Your task to perform on an android device: Turn off the flashlight Image 0: 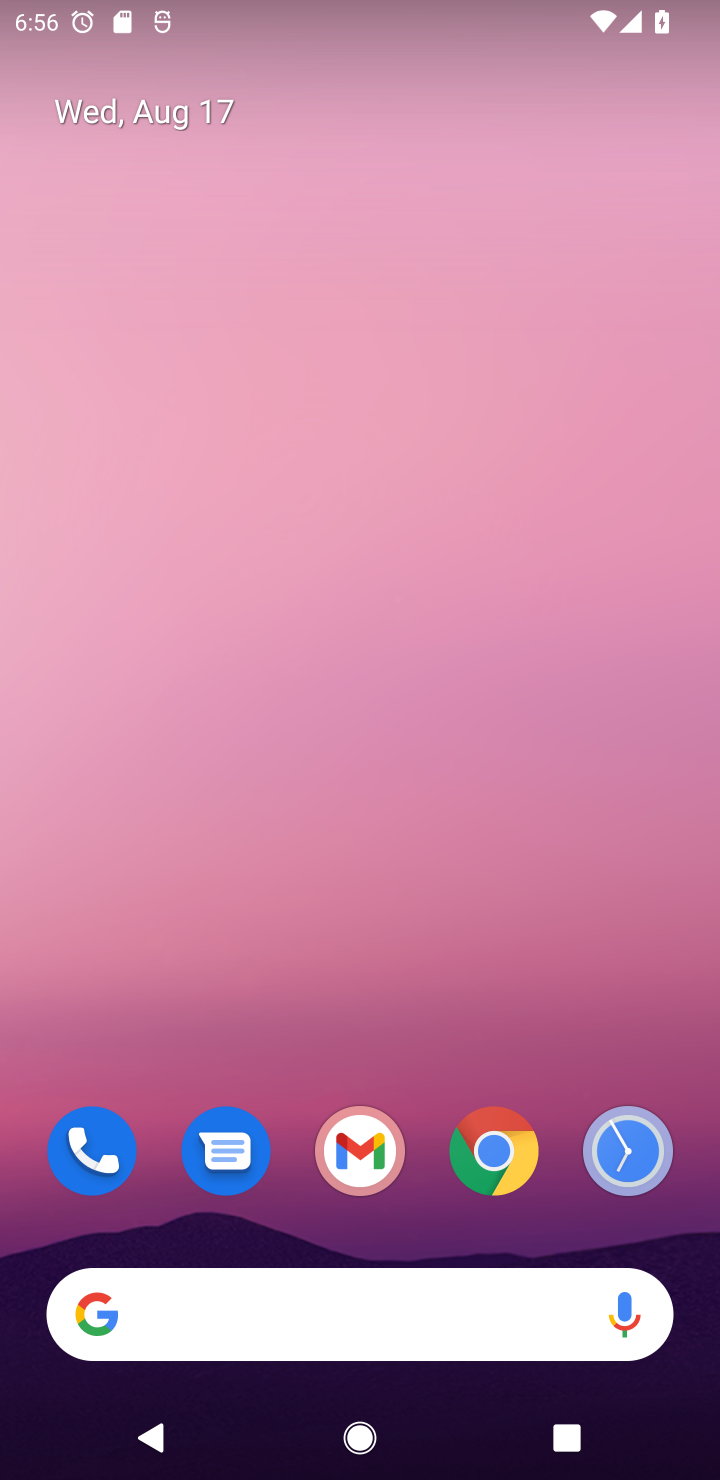
Step 0: drag from (405, 1244) to (375, 171)
Your task to perform on an android device: Turn off the flashlight Image 1: 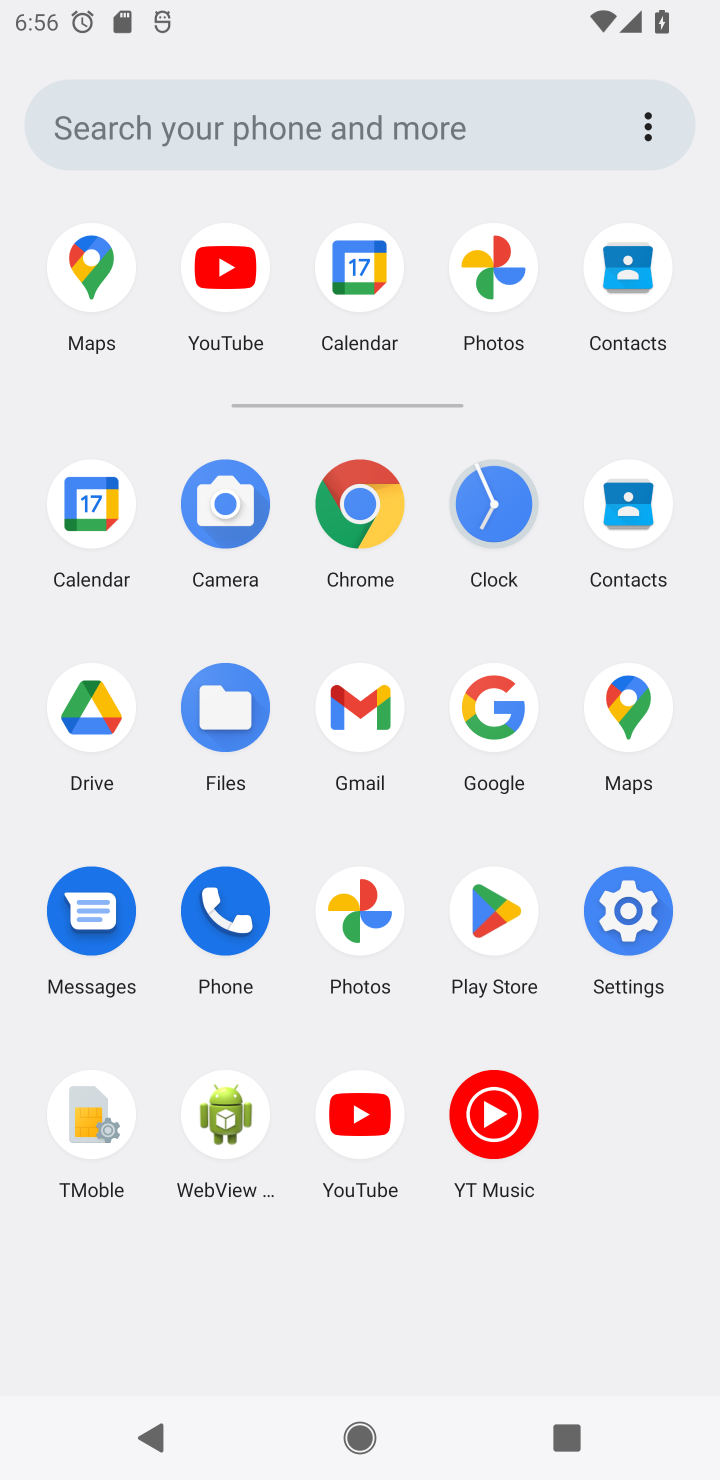
Step 1: click (619, 904)
Your task to perform on an android device: Turn off the flashlight Image 2: 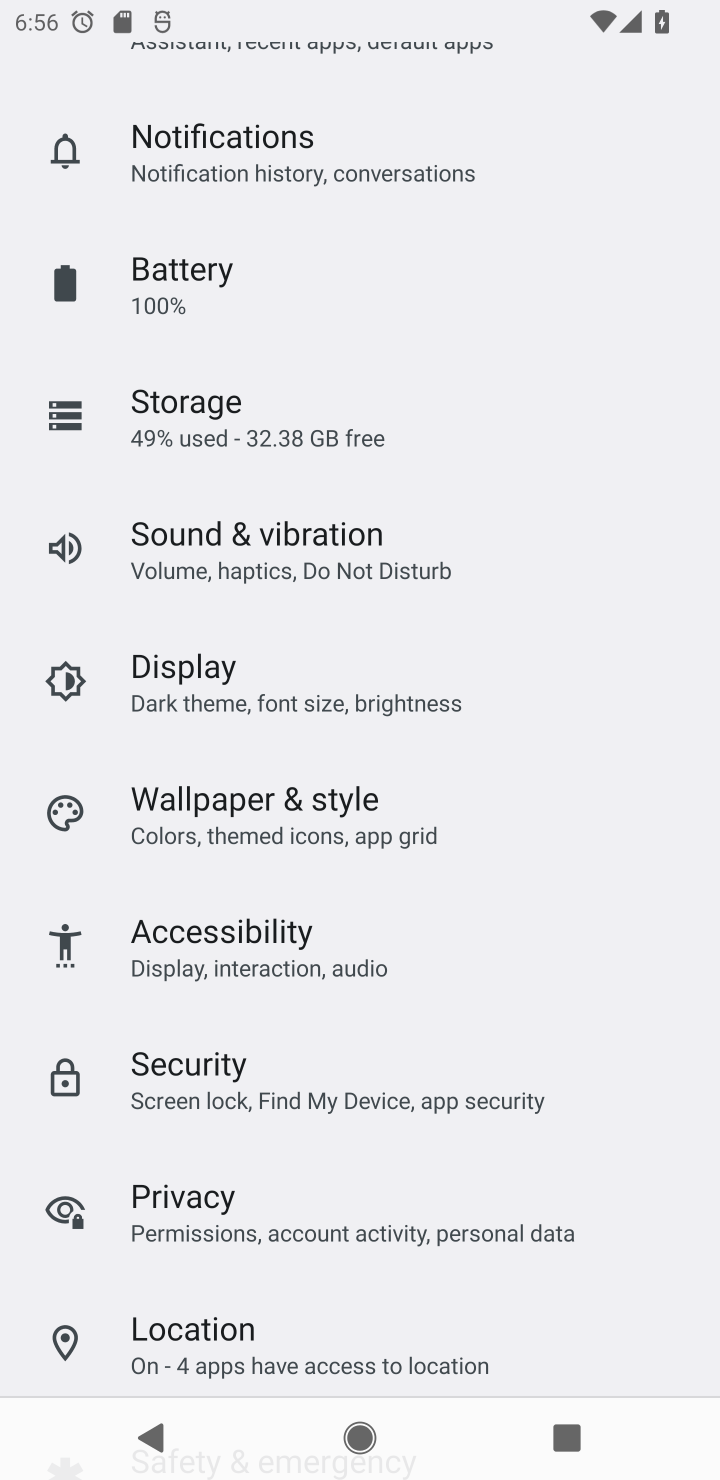
Step 2: task complete